Your task to perform on an android device: see tabs open on other devices in the chrome app Image 0: 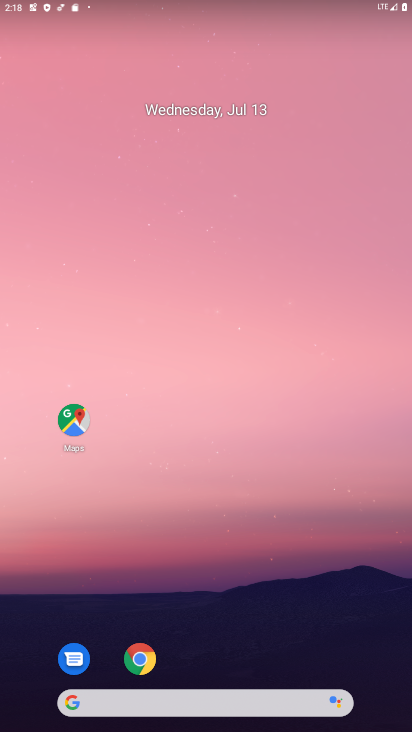
Step 0: click (141, 657)
Your task to perform on an android device: see tabs open on other devices in the chrome app Image 1: 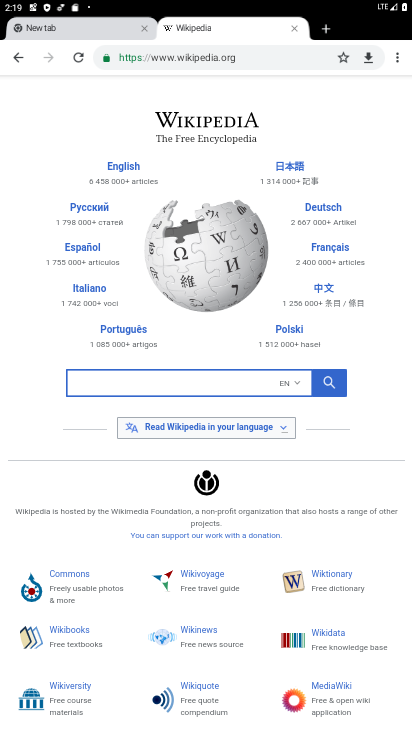
Step 1: click (399, 61)
Your task to perform on an android device: see tabs open on other devices in the chrome app Image 2: 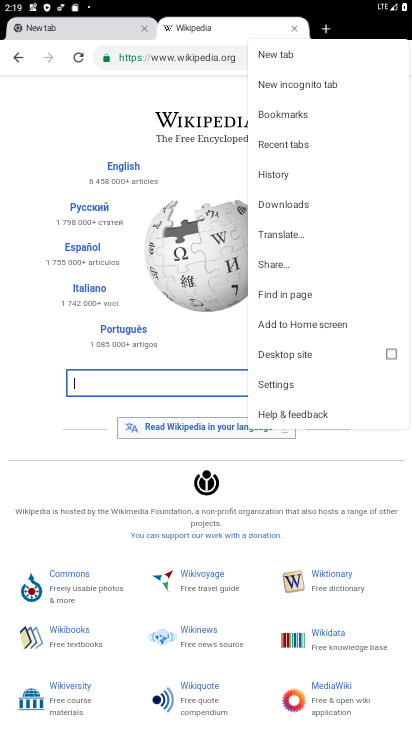
Step 2: click (293, 141)
Your task to perform on an android device: see tabs open on other devices in the chrome app Image 3: 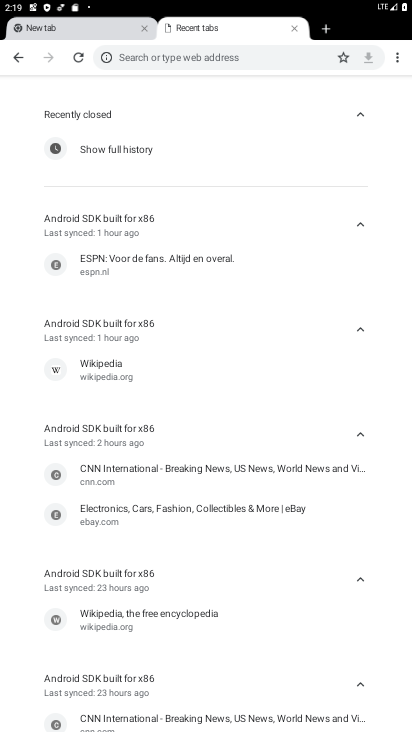
Step 3: task complete